Your task to perform on an android device: View the shopping cart on walmart.com. Add lenovo thinkpad to the cart on walmart.com, then select checkout. Image 0: 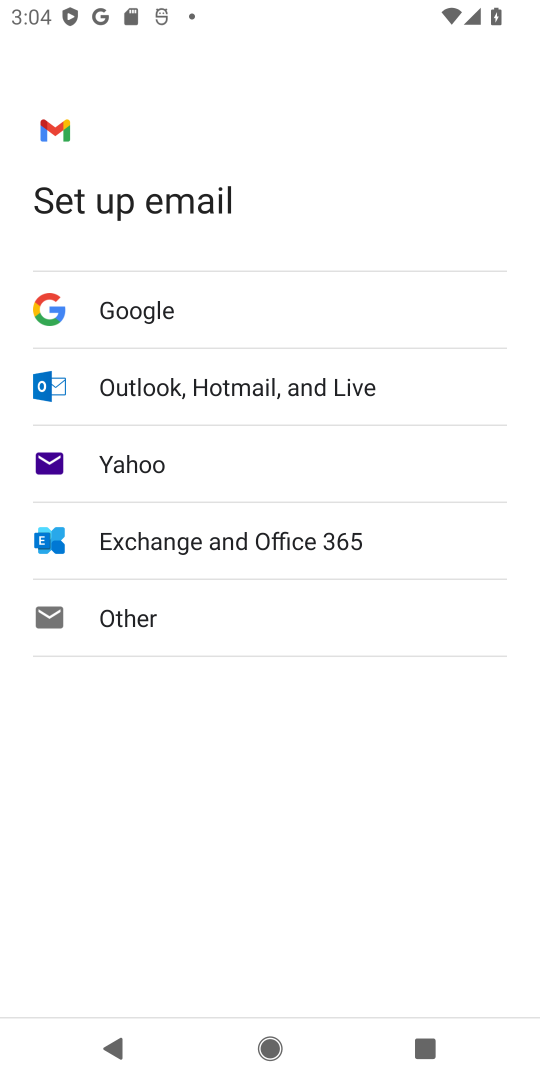
Step 0: press home button
Your task to perform on an android device: View the shopping cart on walmart.com. Add lenovo thinkpad to the cart on walmart.com, then select checkout. Image 1: 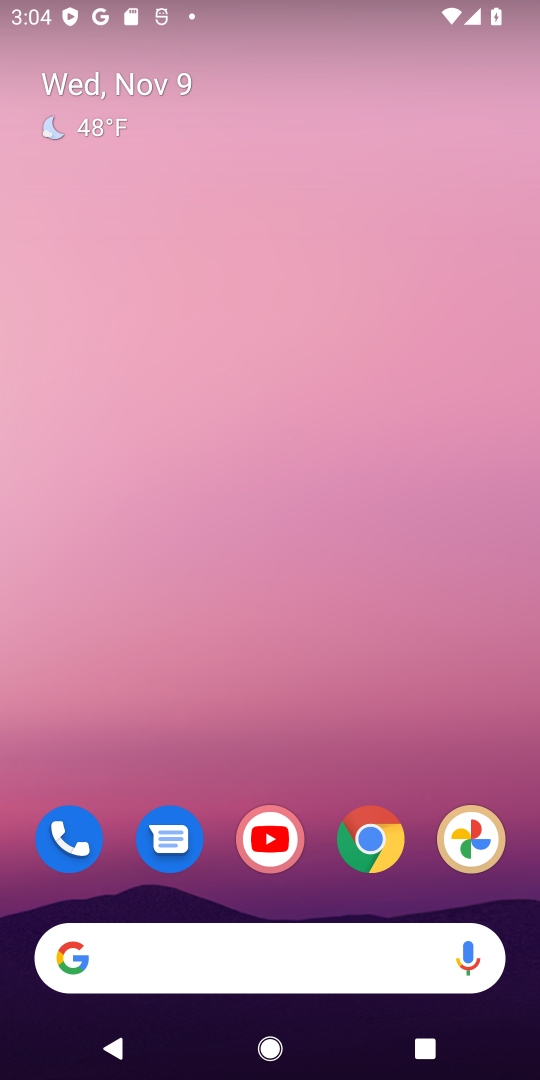
Step 1: drag from (331, 892) to (172, 12)
Your task to perform on an android device: View the shopping cart on walmart.com. Add lenovo thinkpad to the cart on walmart.com, then select checkout. Image 2: 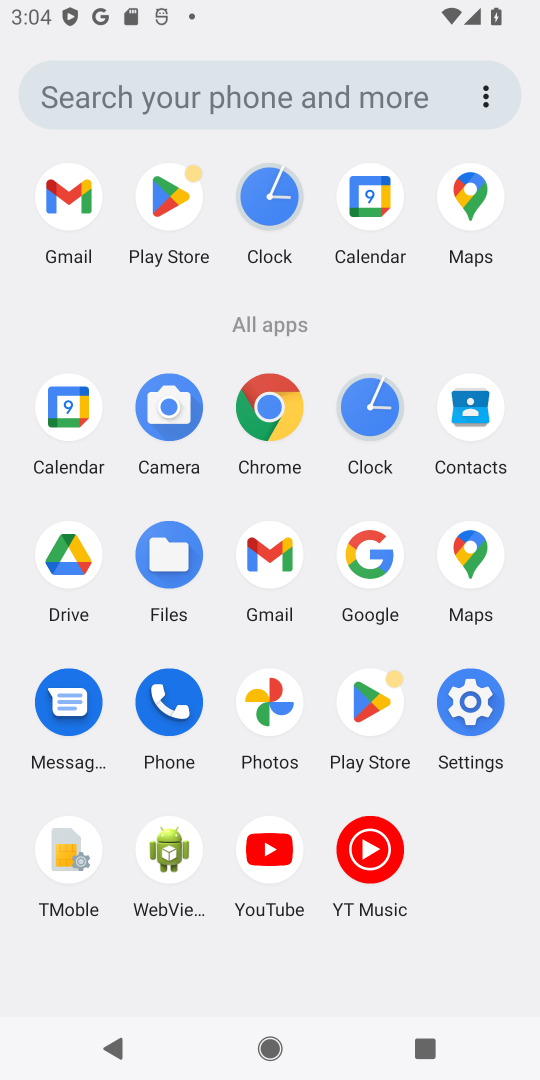
Step 2: click (270, 422)
Your task to perform on an android device: View the shopping cart on walmart.com. Add lenovo thinkpad to the cart on walmart.com, then select checkout. Image 3: 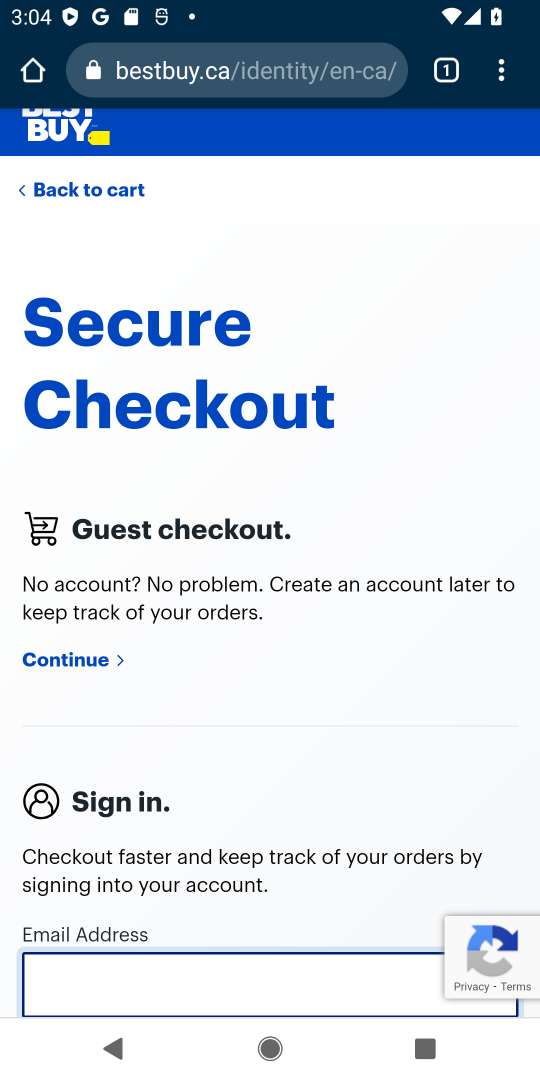
Step 3: click (219, 80)
Your task to perform on an android device: View the shopping cart on walmart.com. Add lenovo thinkpad to the cart on walmart.com, then select checkout. Image 4: 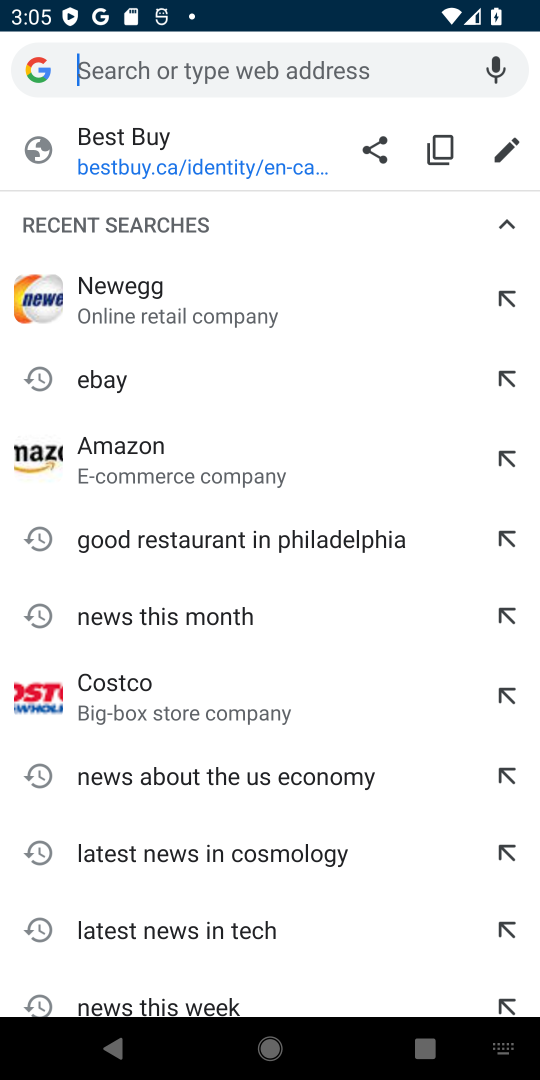
Step 4: type "walmart.com"
Your task to perform on an android device: View the shopping cart on walmart.com. Add lenovo thinkpad to the cart on walmart.com, then select checkout. Image 5: 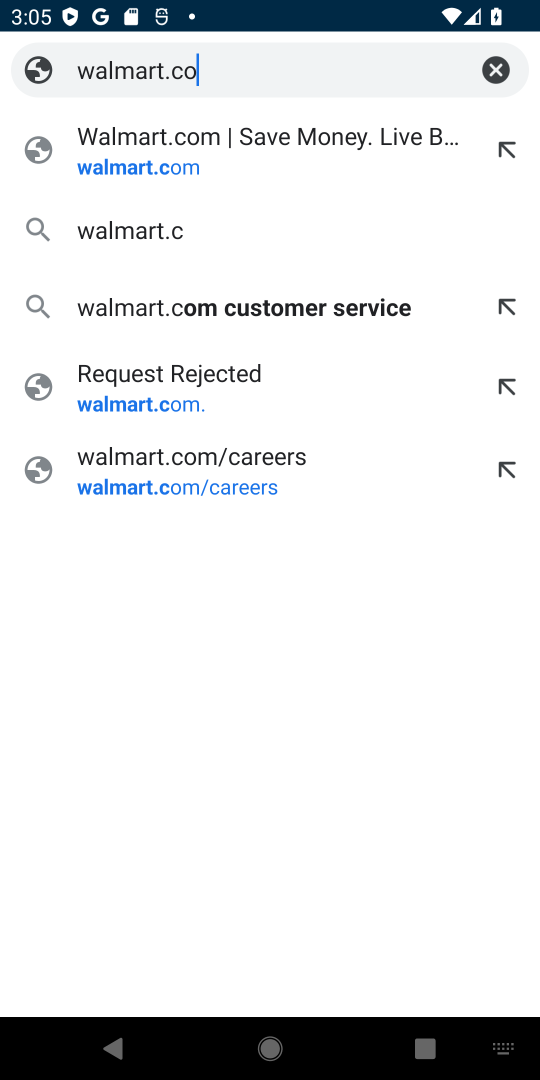
Step 5: press enter
Your task to perform on an android device: View the shopping cart on walmart.com. Add lenovo thinkpad to the cart on walmart.com, then select checkout. Image 6: 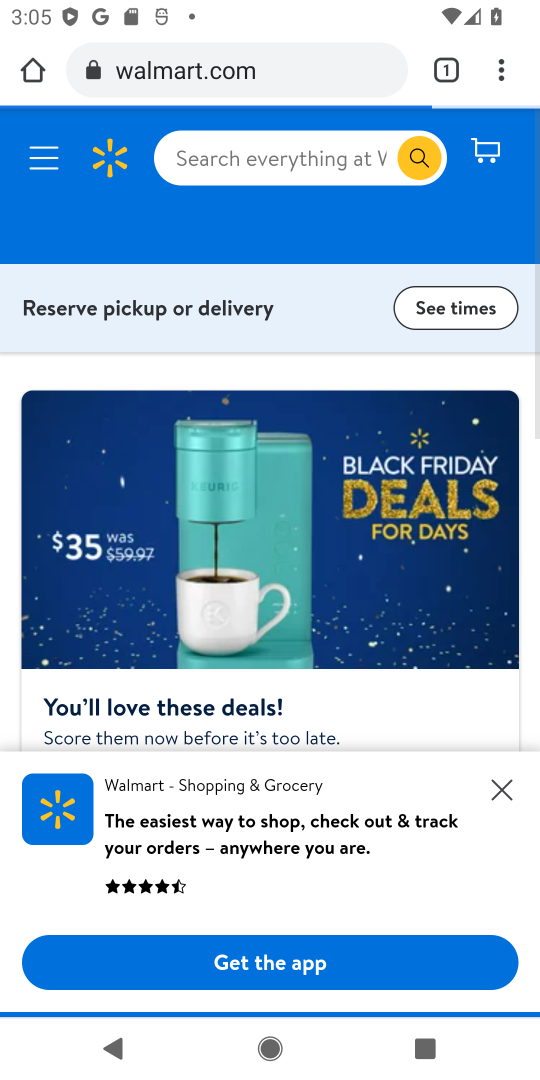
Step 6: click (497, 154)
Your task to perform on an android device: View the shopping cart on walmart.com. Add lenovo thinkpad to the cart on walmart.com, then select checkout. Image 7: 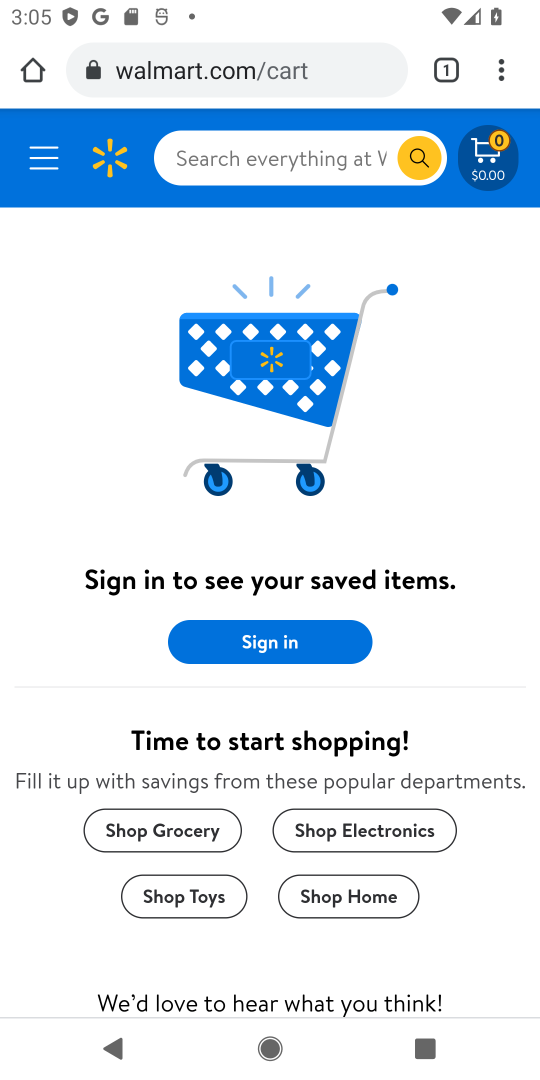
Step 7: click (334, 173)
Your task to perform on an android device: View the shopping cart on walmart.com. Add lenovo thinkpad to the cart on walmart.com, then select checkout. Image 8: 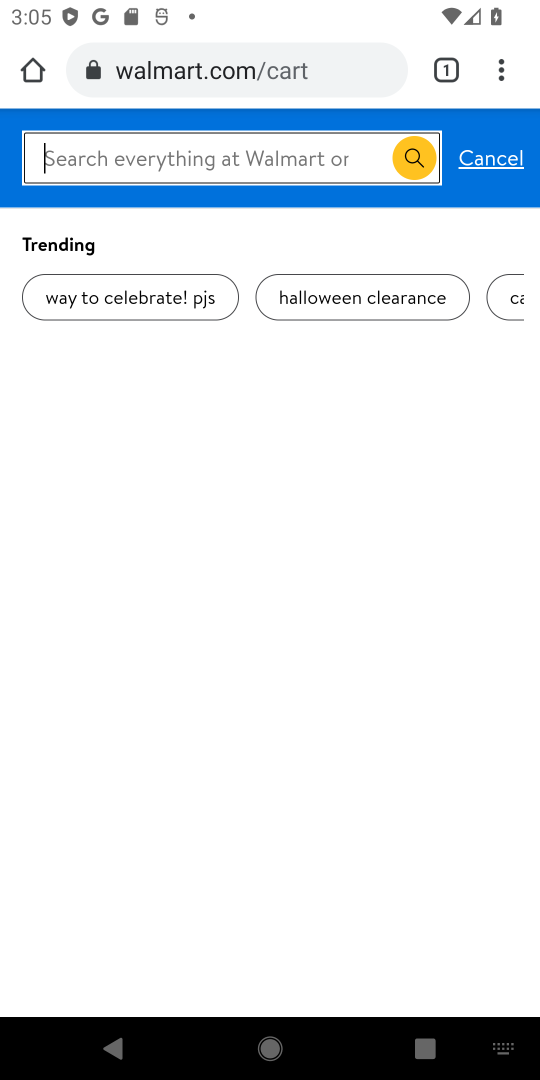
Step 8: type "lenovo thinkpad"
Your task to perform on an android device: View the shopping cart on walmart.com. Add lenovo thinkpad to the cart on walmart.com, then select checkout. Image 9: 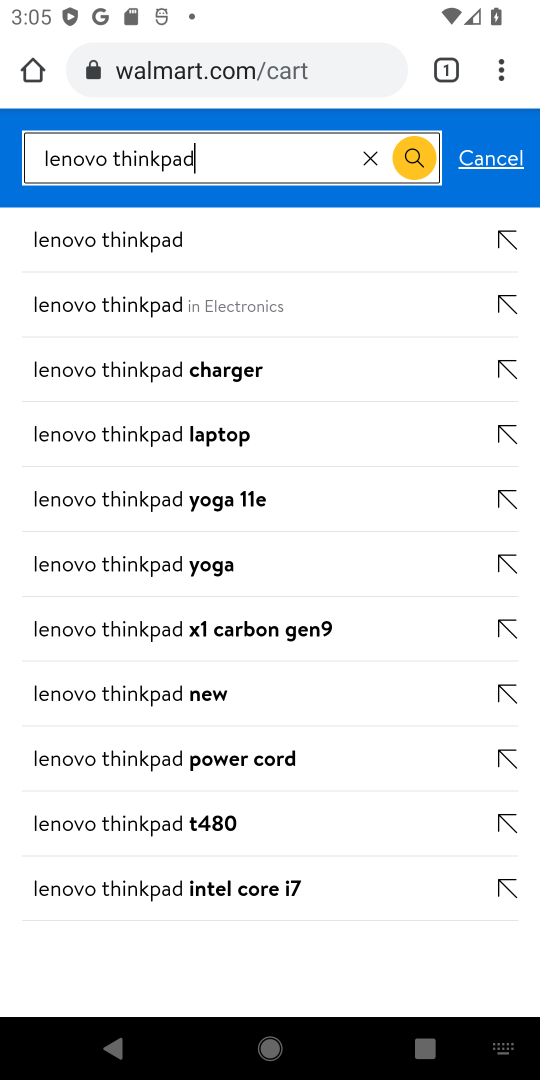
Step 9: press enter
Your task to perform on an android device: View the shopping cart on walmart.com. Add lenovo thinkpad to the cart on walmart.com, then select checkout. Image 10: 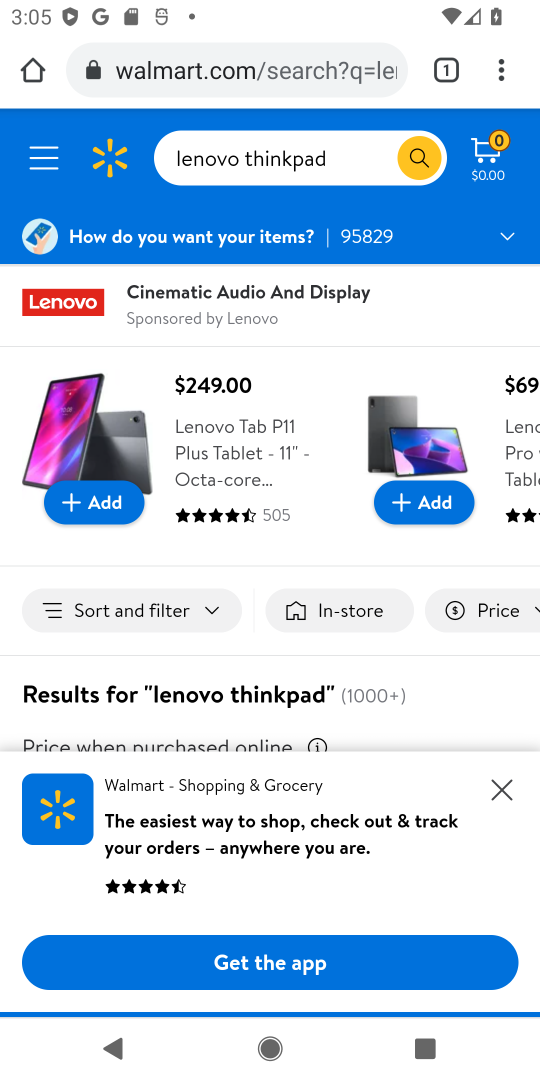
Step 10: drag from (350, 710) to (422, 142)
Your task to perform on an android device: View the shopping cart on walmart.com. Add lenovo thinkpad to the cart on walmart.com, then select checkout. Image 11: 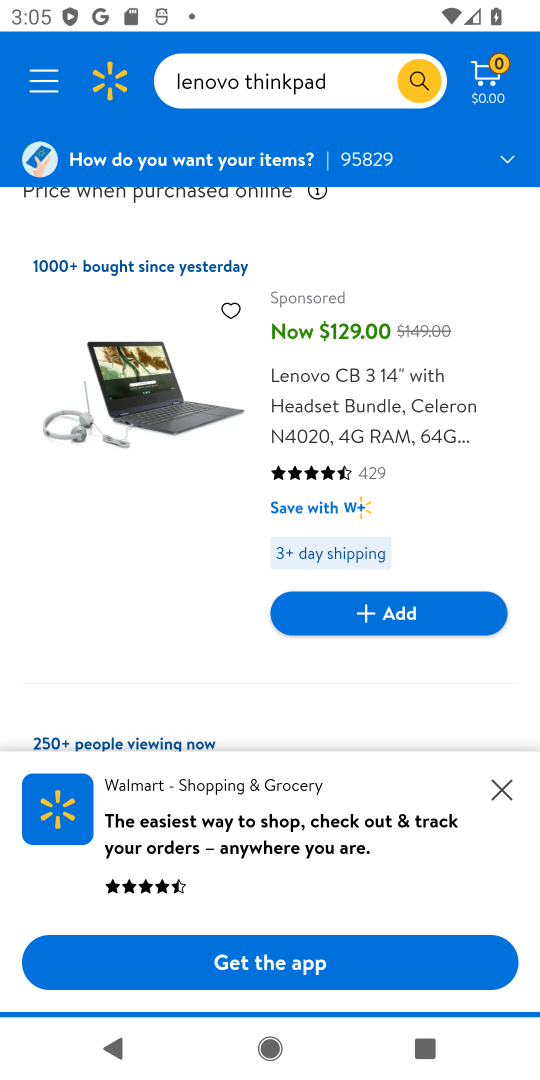
Step 11: drag from (298, 681) to (352, 176)
Your task to perform on an android device: View the shopping cart on walmart.com. Add lenovo thinkpad to the cart on walmart.com, then select checkout. Image 12: 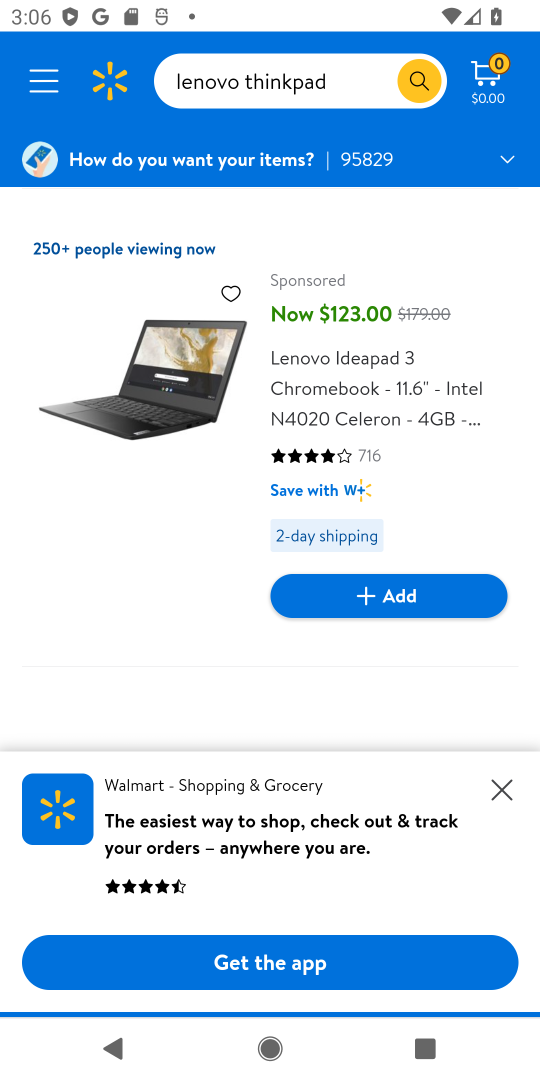
Step 12: drag from (215, 636) to (184, 112)
Your task to perform on an android device: View the shopping cart on walmart.com. Add lenovo thinkpad to the cart on walmart.com, then select checkout. Image 13: 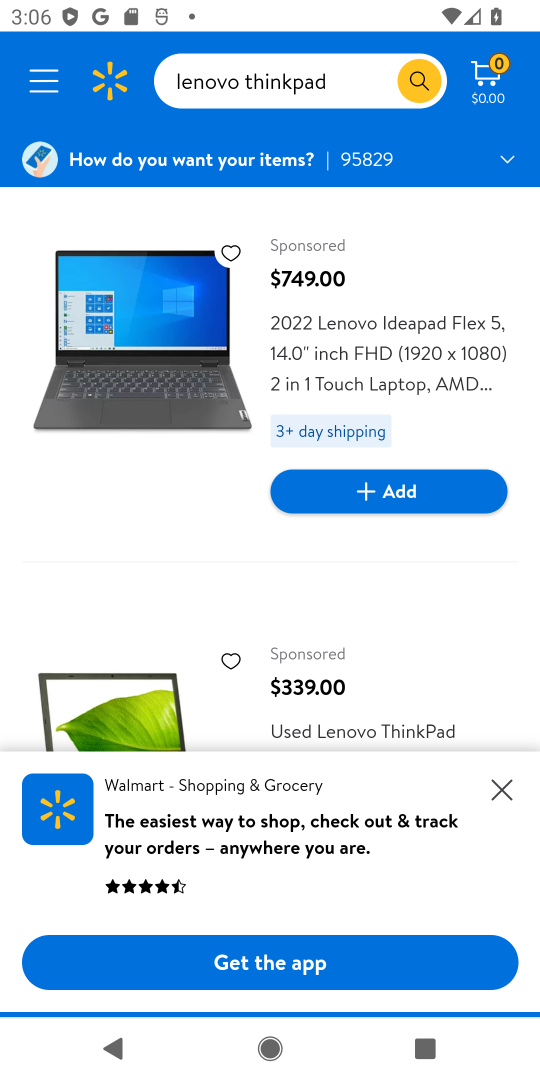
Step 13: drag from (200, 702) to (144, 168)
Your task to perform on an android device: View the shopping cart on walmart.com. Add lenovo thinkpad to the cart on walmart.com, then select checkout. Image 14: 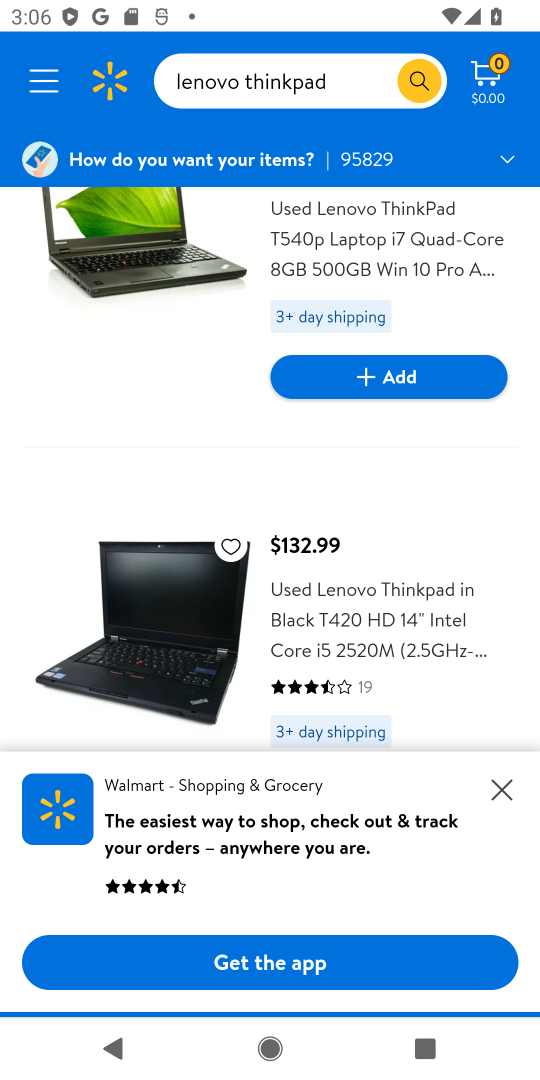
Step 14: drag from (248, 710) to (270, 345)
Your task to perform on an android device: View the shopping cart on walmart.com. Add lenovo thinkpad to the cart on walmart.com, then select checkout. Image 15: 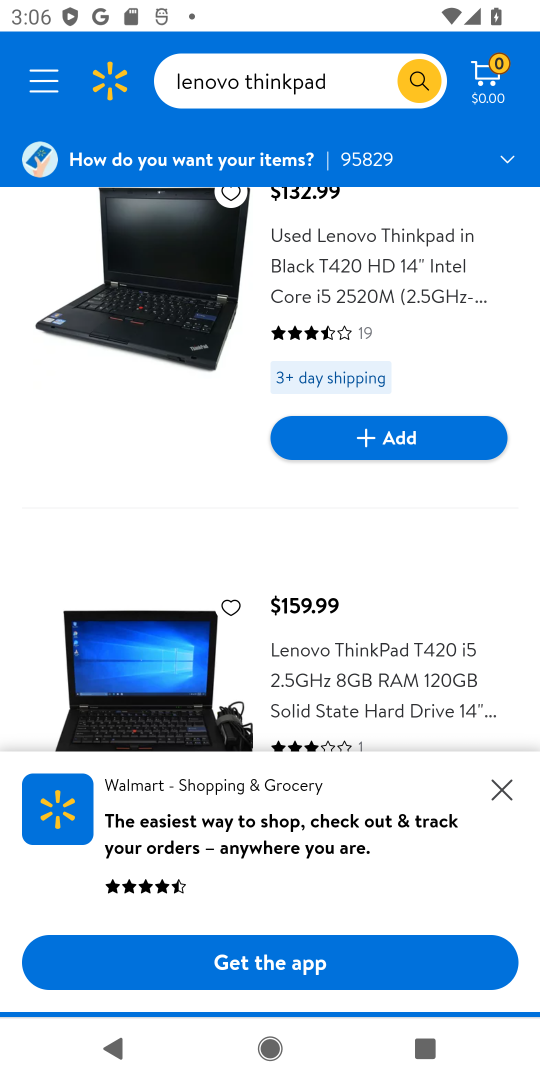
Step 15: click (355, 446)
Your task to perform on an android device: View the shopping cart on walmart.com. Add lenovo thinkpad to the cart on walmart.com, then select checkout. Image 16: 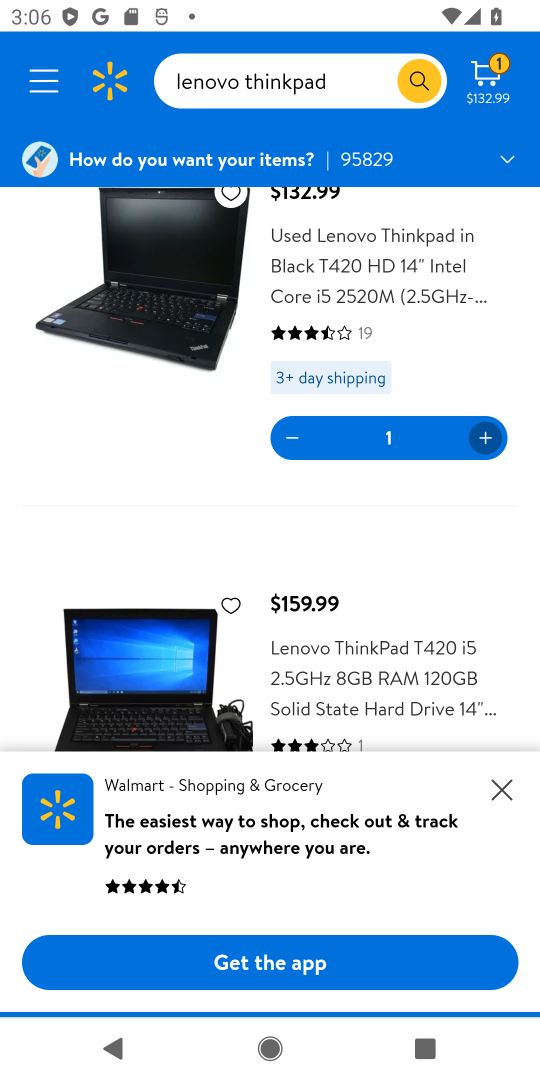
Step 16: click (481, 97)
Your task to perform on an android device: View the shopping cart on walmart.com. Add lenovo thinkpad to the cart on walmart.com, then select checkout. Image 17: 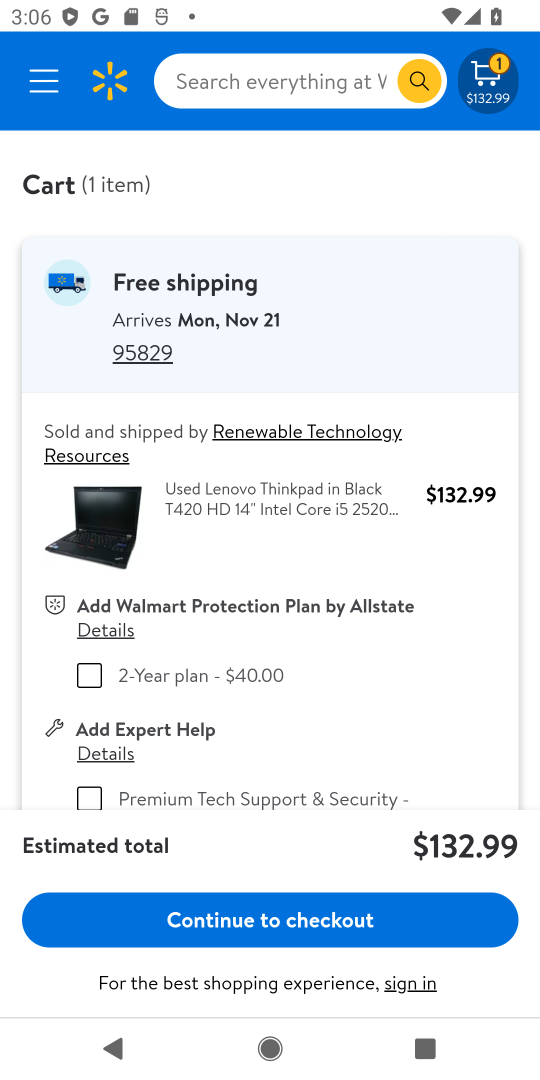
Step 17: click (427, 916)
Your task to perform on an android device: View the shopping cart on walmart.com. Add lenovo thinkpad to the cart on walmart.com, then select checkout. Image 18: 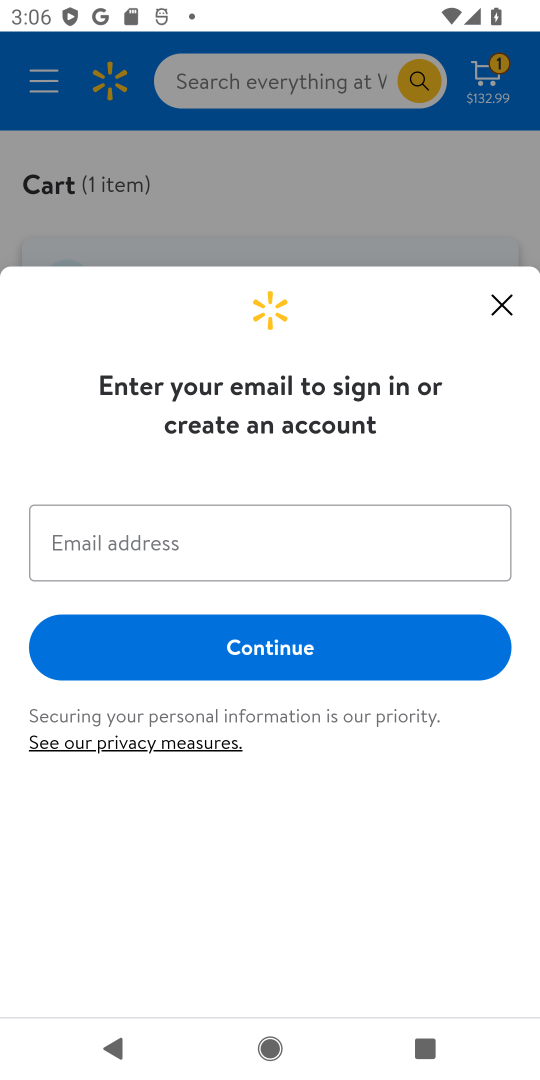
Step 18: task complete